Your task to perform on an android device: add a contact in the contacts app Image 0: 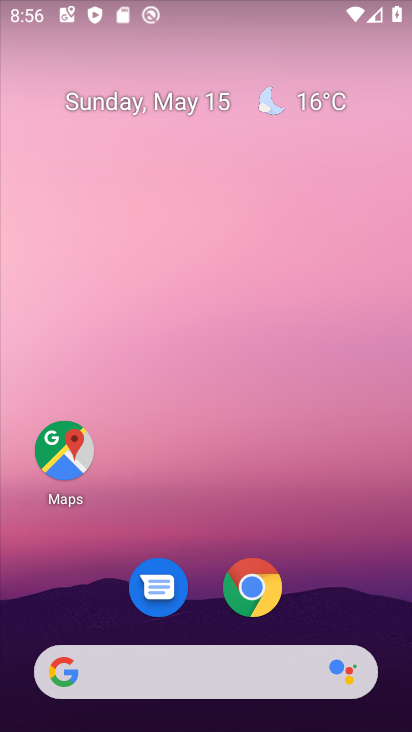
Step 0: drag from (364, 551) to (287, 2)
Your task to perform on an android device: add a contact in the contacts app Image 1: 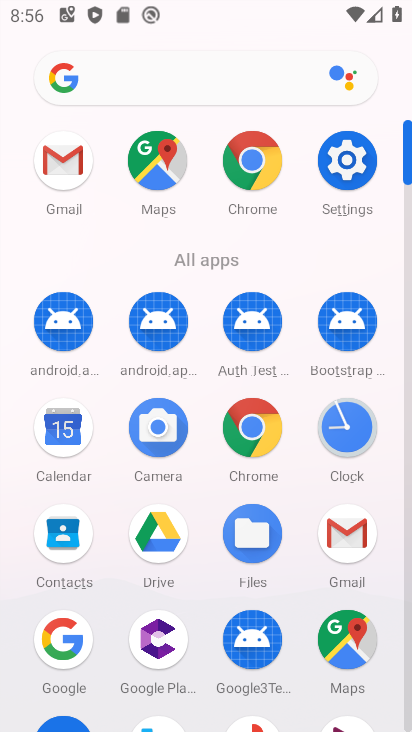
Step 1: click (66, 542)
Your task to perform on an android device: add a contact in the contacts app Image 2: 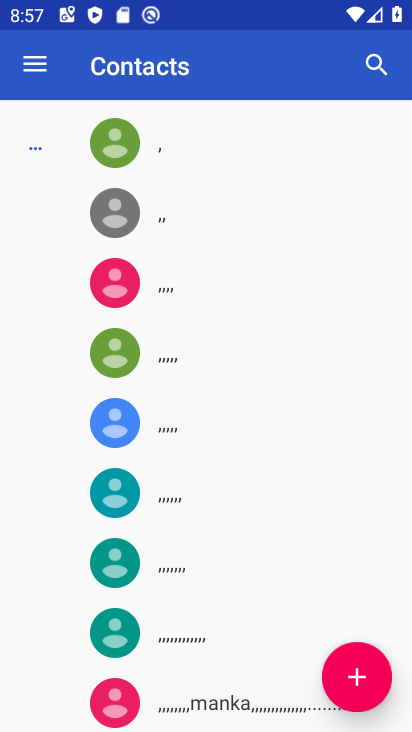
Step 2: click (361, 662)
Your task to perform on an android device: add a contact in the contacts app Image 3: 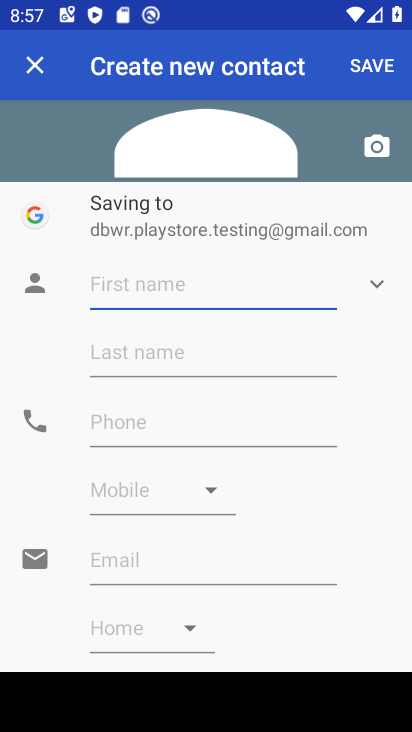
Step 3: click (214, 283)
Your task to perform on an android device: add a contact in the contacts app Image 4: 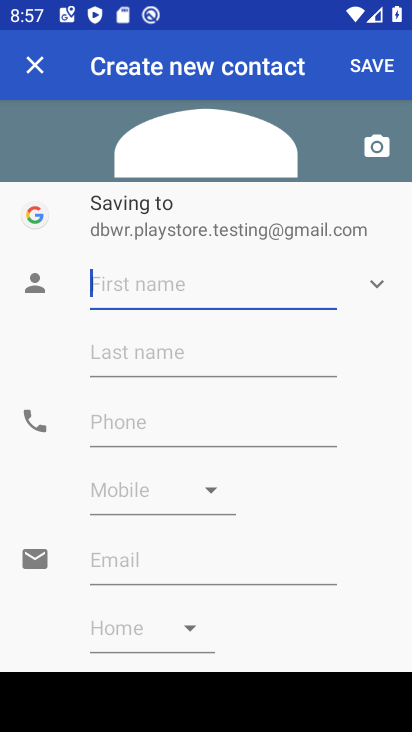
Step 4: type "dddddds"
Your task to perform on an android device: add a contact in the contacts app Image 5: 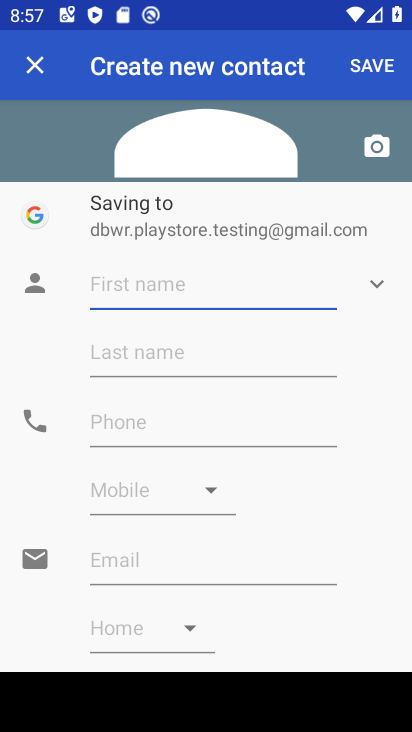
Step 5: click (366, 64)
Your task to perform on an android device: add a contact in the contacts app Image 6: 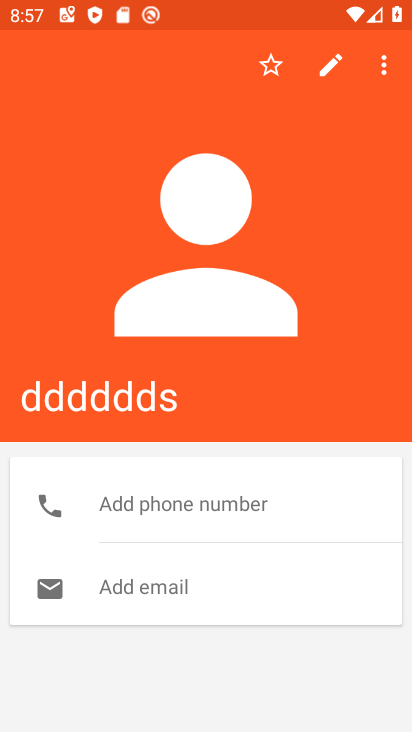
Step 6: task complete